Your task to perform on an android device: turn off location Image 0: 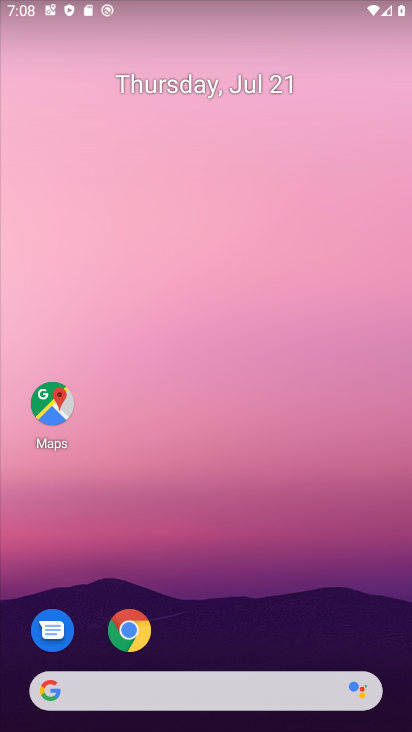
Step 0: drag from (231, 717) to (215, 11)
Your task to perform on an android device: turn off location Image 1: 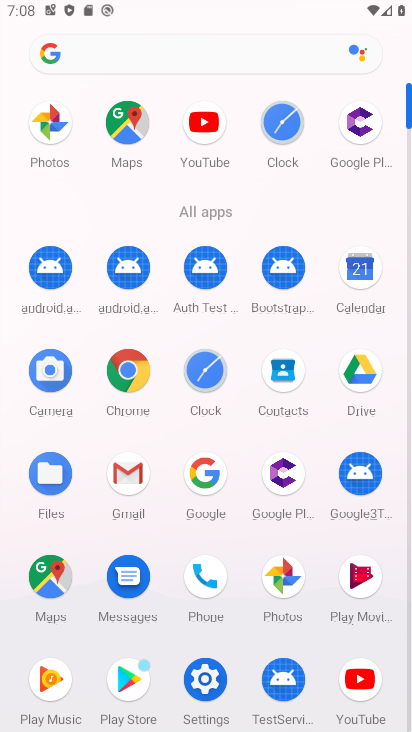
Step 1: click (203, 672)
Your task to perform on an android device: turn off location Image 2: 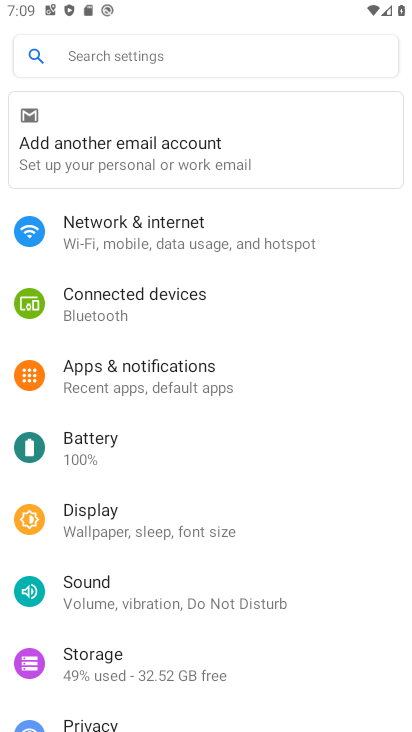
Step 2: drag from (248, 564) to (296, 102)
Your task to perform on an android device: turn off location Image 3: 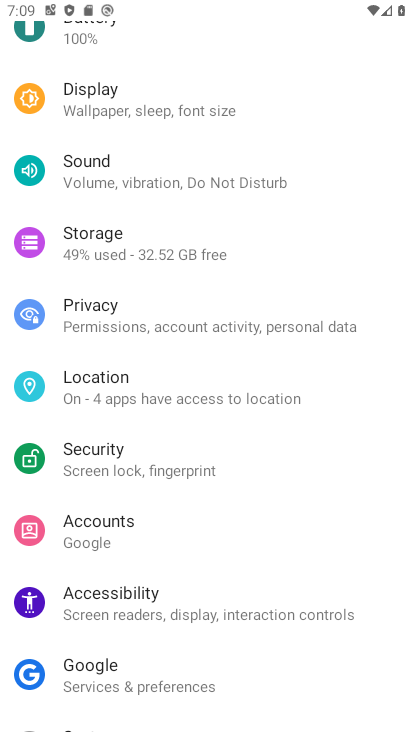
Step 3: click (137, 386)
Your task to perform on an android device: turn off location Image 4: 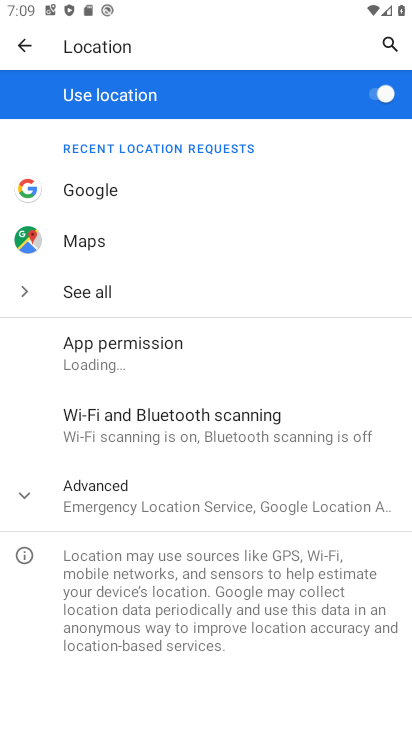
Step 4: click (390, 89)
Your task to perform on an android device: turn off location Image 5: 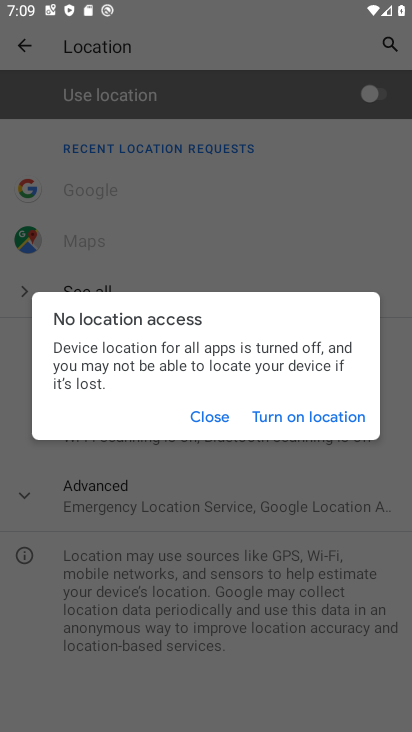
Step 5: task complete